Your task to perform on an android device: Go to Google Image 0: 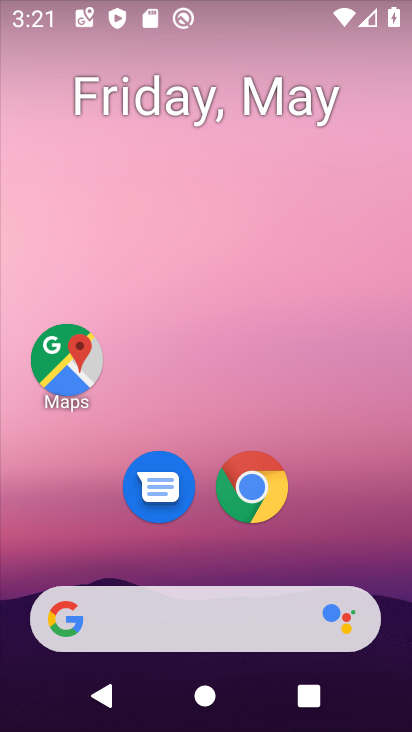
Step 0: drag from (388, 626) to (215, 3)
Your task to perform on an android device: Go to Google Image 1: 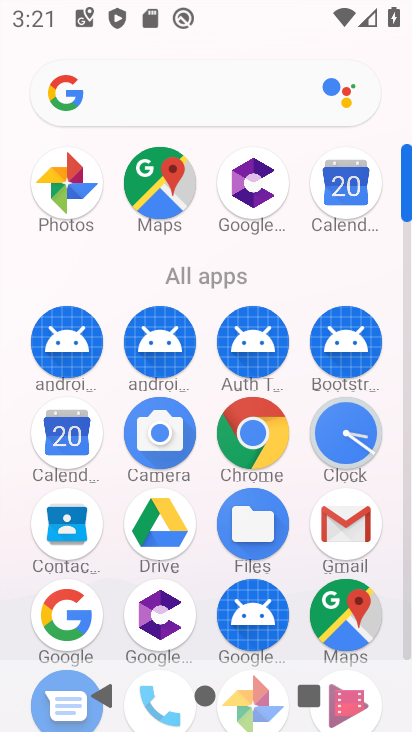
Step 1: drag from (206, 600) to (216, 160)
Your task to perform on an android device: Go to Google Image 2: 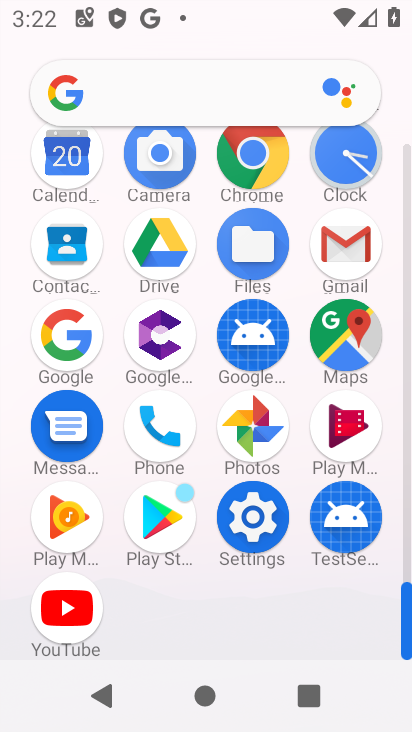
Step 2: click (67, 331)
Your task to perform on an android device: Go to Google Image 3: 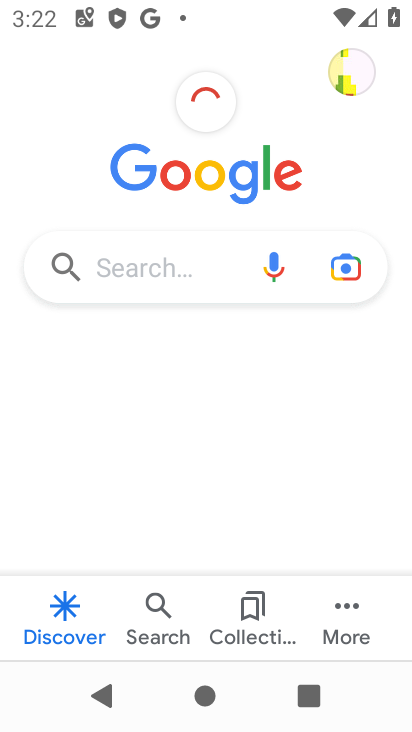
Step 3: task complete